Your task to perform on an android device: open chrome and create a bookmark for the current page Image 0: 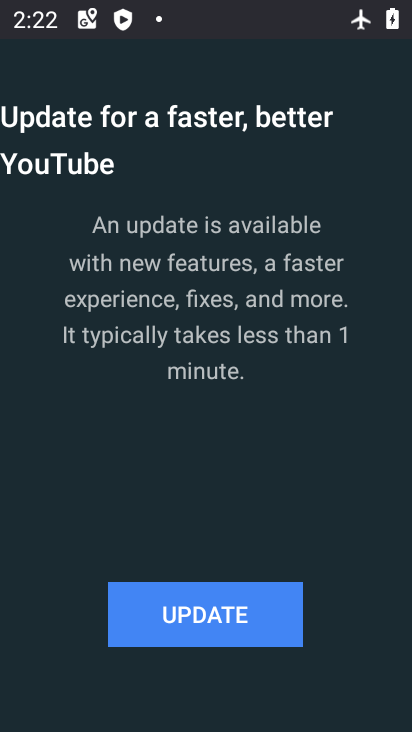
Step 0: press home button
Your task to perform on an android device: open chrome and create a bookmark for the current page Image 1: 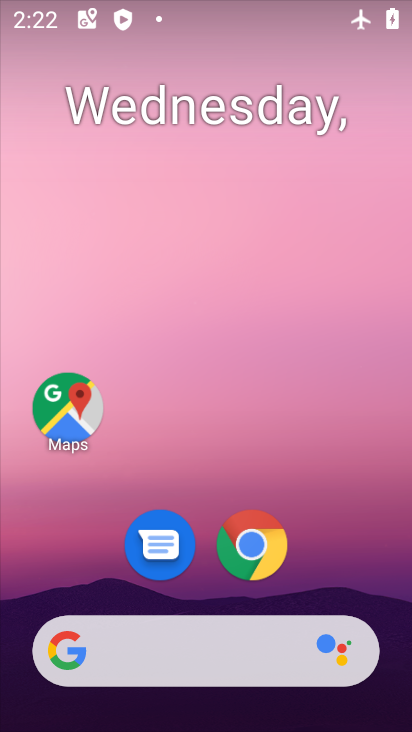
Step 1: click (256, 547)
Your task to perform on an android device: open chrome and create a bookmark for the current page Image 2: 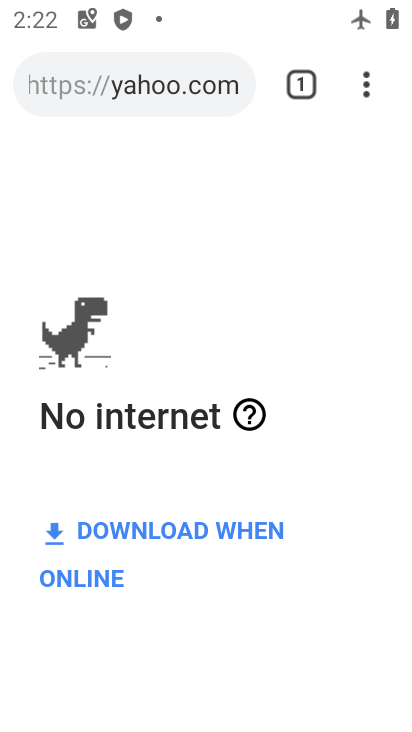
Step 2: task complete